Your task to perform on an android device: change notifications settings Image 0: 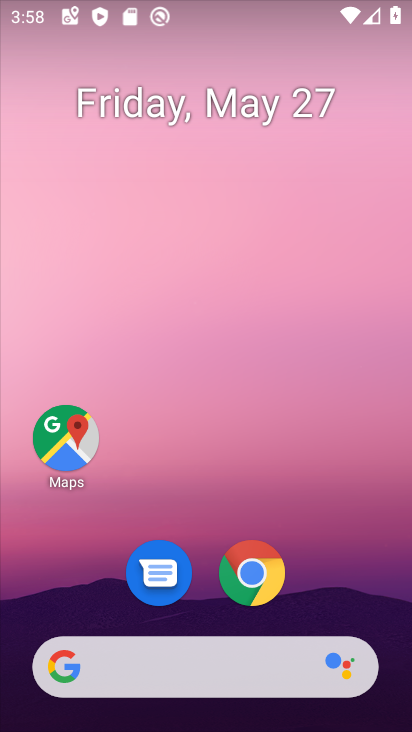
Step 0: drag from (310, 553) to (288, 37)
Your task to perform on an android device: change notifications settings Image 1: 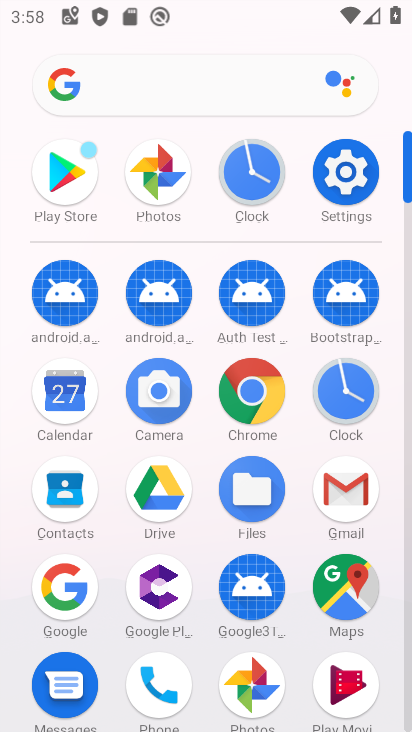
Step 1: click (346, 172)
Your task to perform on an android device: change notifications settings Image 2: 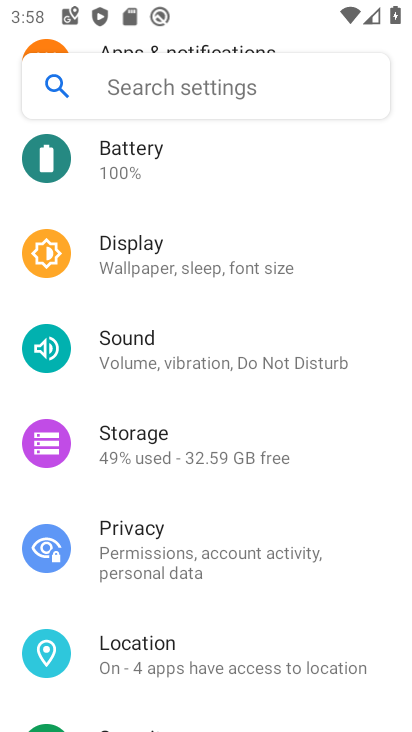
Step 2: drag from (236, 328) to (284, 610)
Your task to perform on an android device: change notifications settings Image 3: 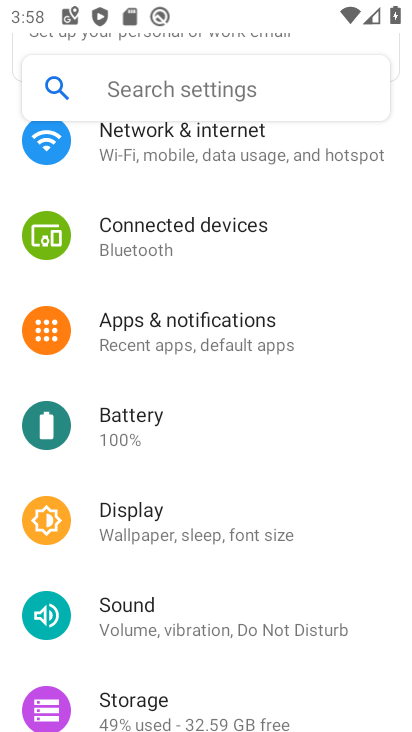
Step 3: click (256, 326)
Your task to perform on an android device: change notifications settings Image 4: 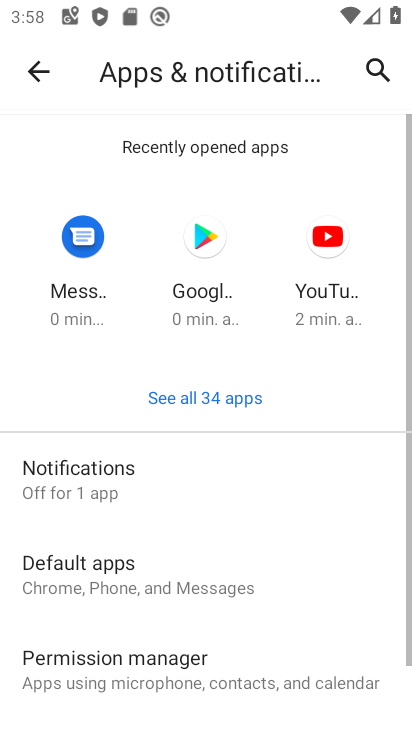
Step 4: click (201, 474)
Your task to perform on an android device: change notifications settings Image 5: 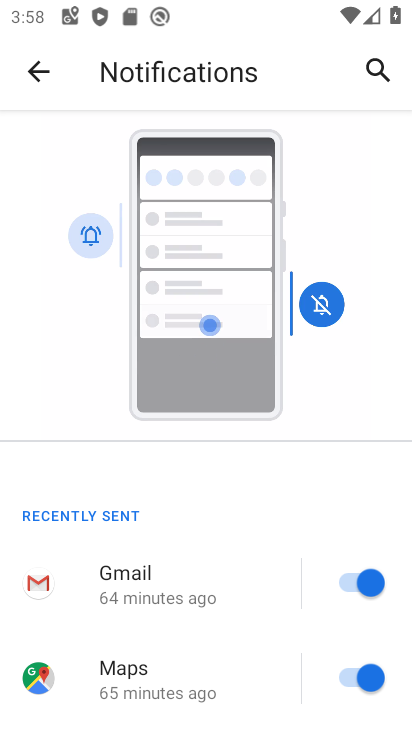
Step 5: drag from (197, 598) to (194, 170)
Your task to perform on an android device: change notifications settings Image 6: 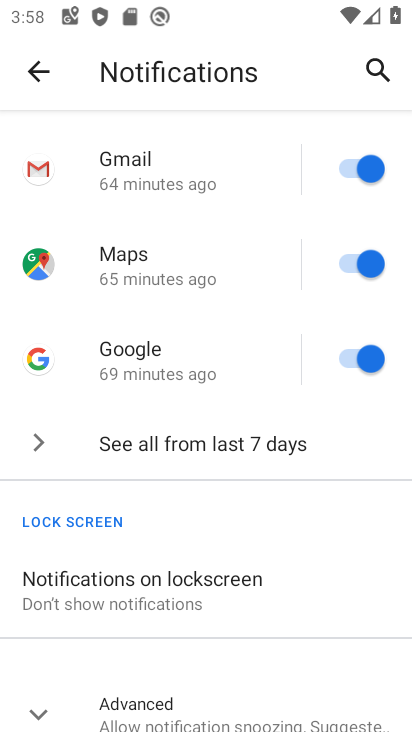
Step 6: click (193, 441)
Your task to perform on an android device: change notifications settings Image 7: 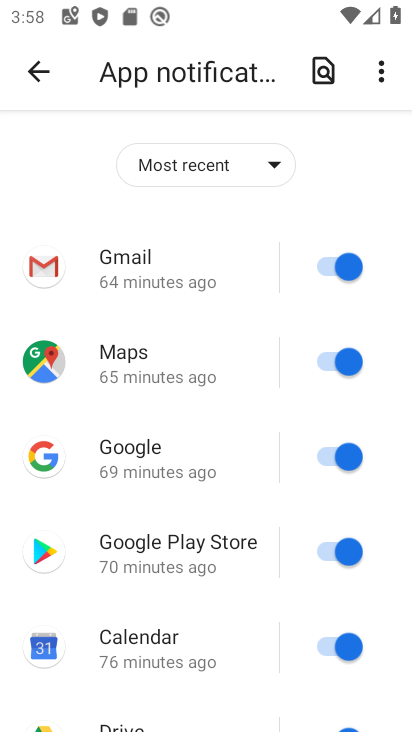
Step 7: click (349, 256)
Your task to perform on an android device: change notifications settings Image 8: 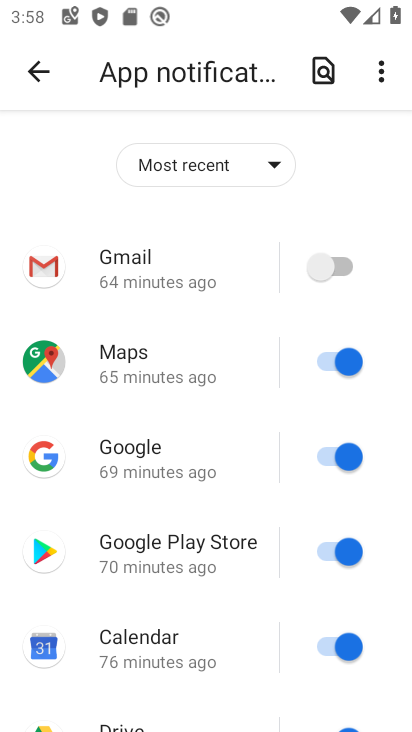
Step 8: click (340, 353)
Your task to perform on an android device: change notifications settings Image 9: 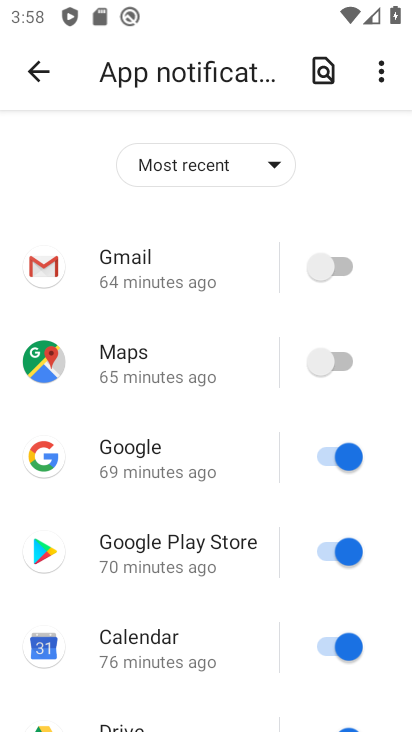
Step 9: click (353, 447)
Your task to perform on an android device: change notifications settings Image 10: 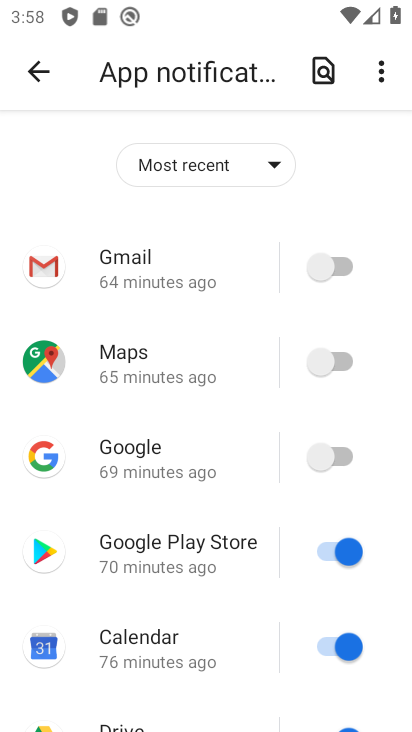
Step 10: click (358, 544)
Your task to perform on an android device: change notifications settings Image 11: 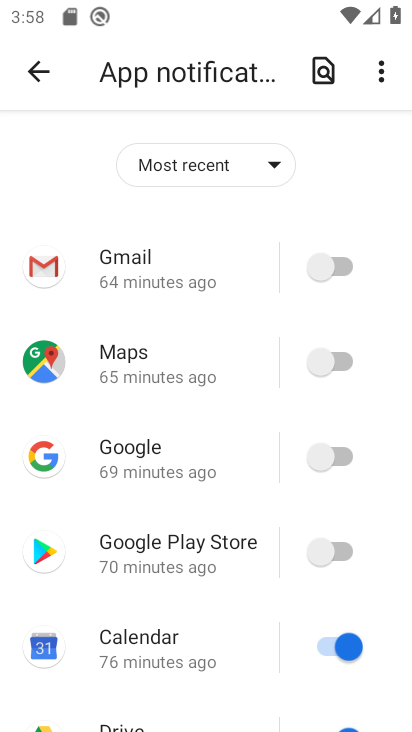
Step 11: click (350, 645)
Your task to perform on an android device: change notifications settings Image 12: 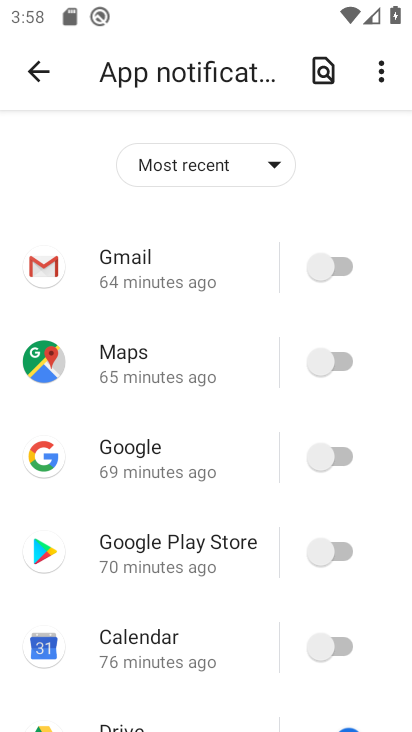
Step 12: drag from (217, 628) to (197, 89)
Your task to perform on an android device: change notifications settings Image 13: 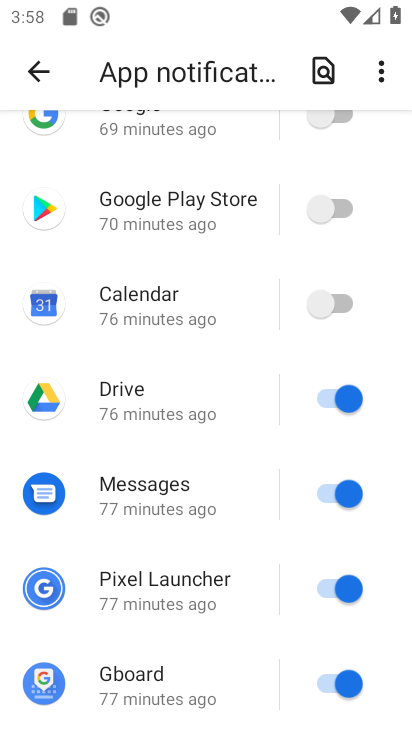
Step 13: click (333, 394)
Your task to perform on an android device: change notifications settings Image 14: 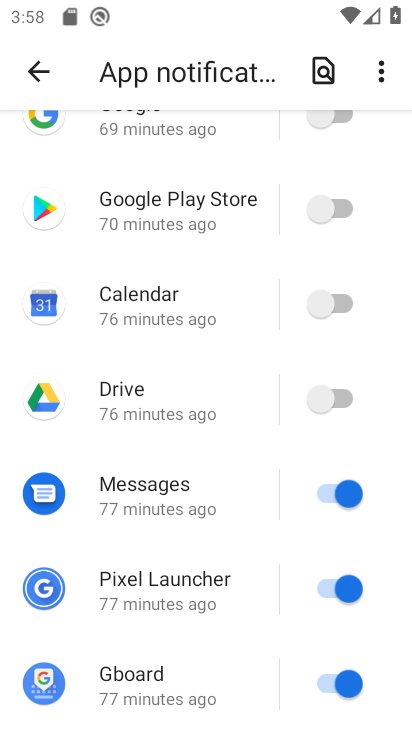
Step 14: click (342, 496)
Your task to perform on an android device: change notifications settings Image 15: 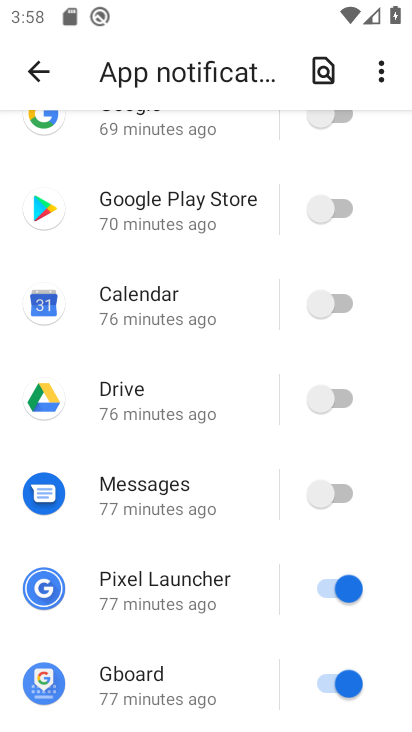
Step 15: click (342, 585)
Your task to perform on an android device: change notifications settings Image 16: 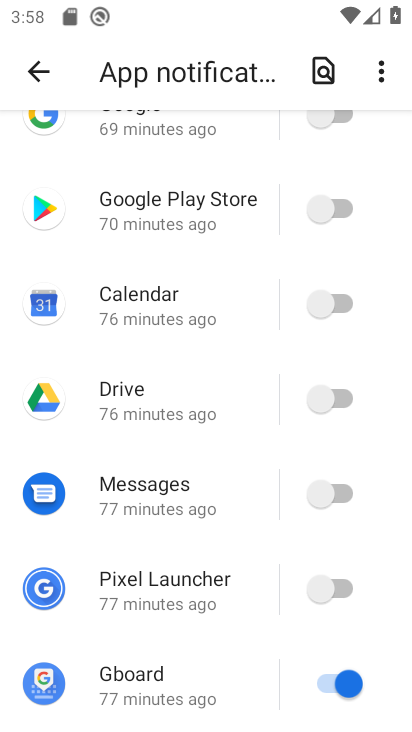
Step 16: click (339, 682)
Your task to perform on an android device: change notifications settings Image 17: 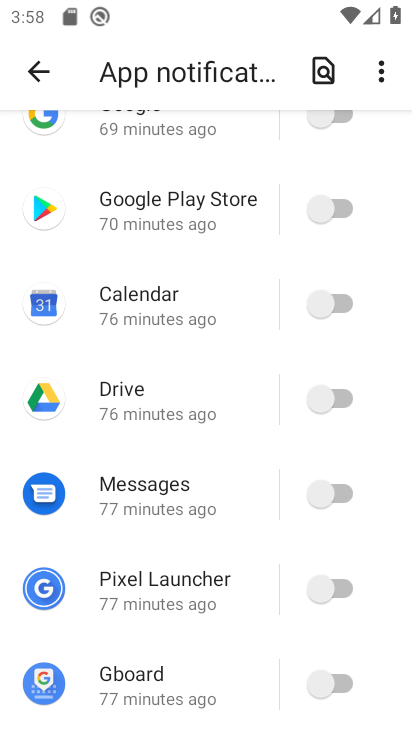
Step 17: task complete